Your task to perform on an android device: search for starred emails in the gmail app Image 0: 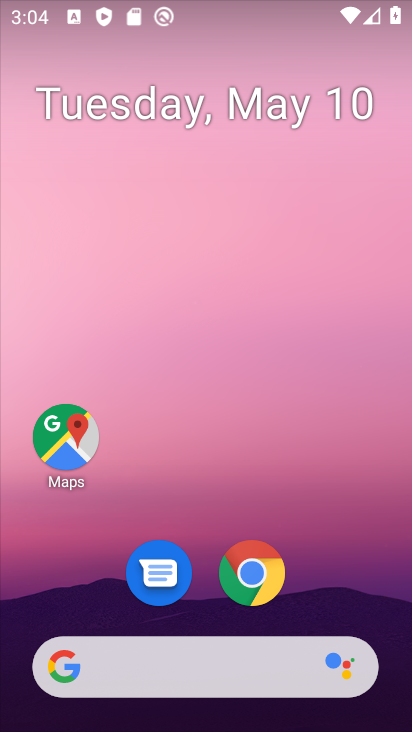
Step 0: drag from (316, 528) to (236, 11)
Your task to perform on an android device: search for starred emails in the gmail app Image 1: 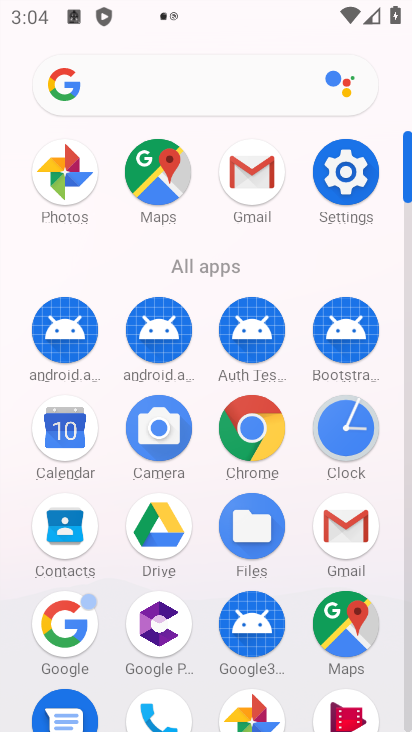
Step 1: click (255, 170)
Your task to perform on an android device: search for starred emails in the gmail app Image 2: 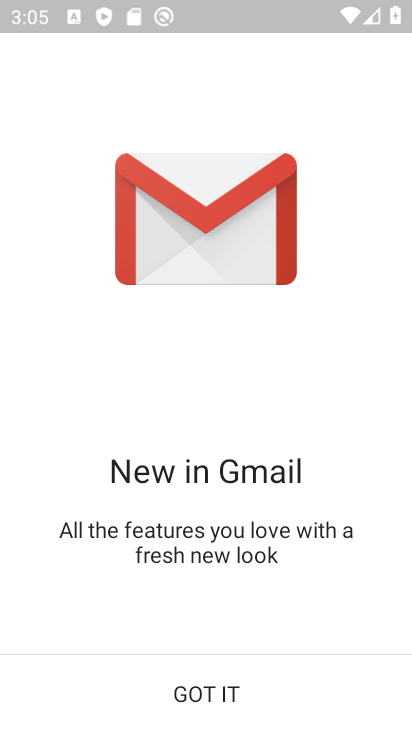
Step 2: click (232, 685)
Your task to perform on an android device: search for starred emails in the gmail app Image 3: 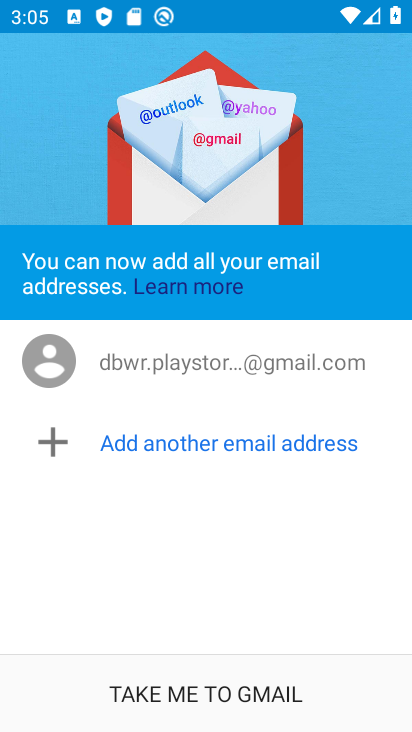
Step 3: click (232, 685)
Your task to perform on an android device: search for starred emails in the gmail app Image 4: 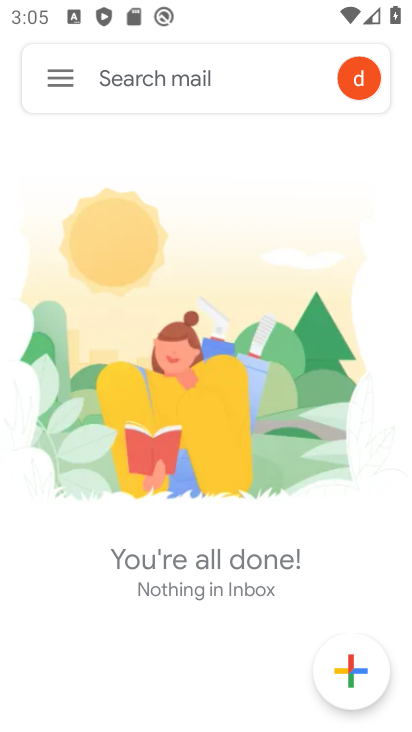
Step 4: click (57, 74)
Your task to perform on an android device: search for starred emails in the gmail app Image 5: 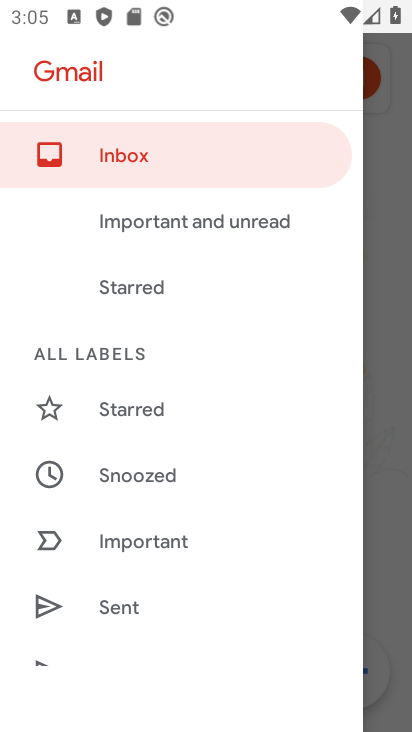
Step 5: click (138, 407)
Your task to perform on an android device: search for starred emails in the gmail app Image 6: 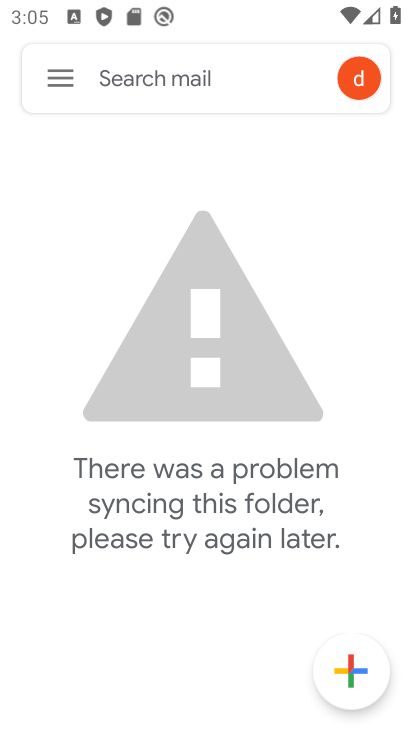
Step 6: task complete